Your task to perform on an android device: turn off javascript in the chrome app Image 0: 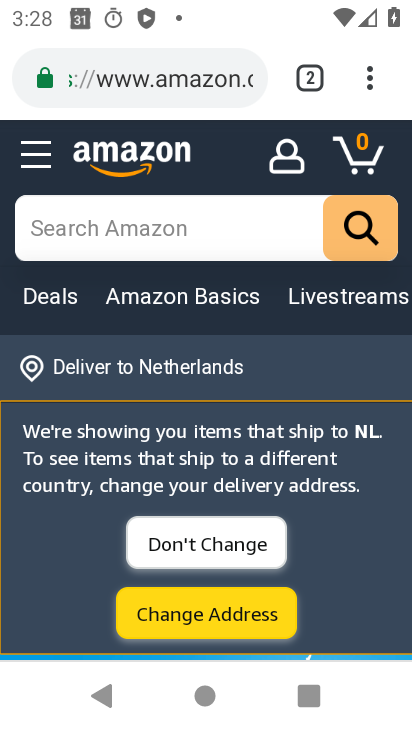
Step 0: press home button
Your task to perform on an android device: turn off javascript in the chrome app Image 1: 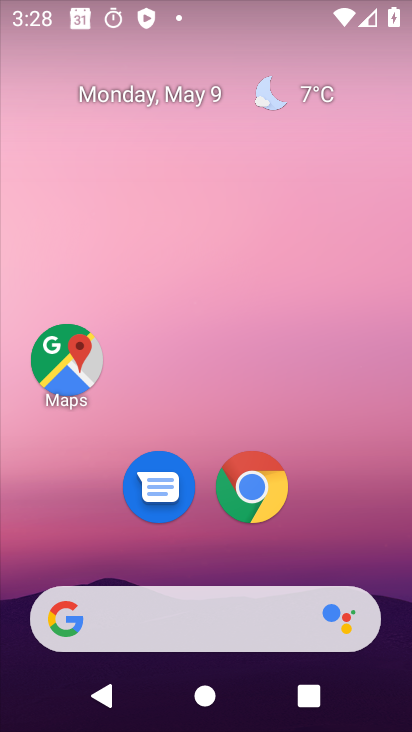
Step 1: drag from (293, 620) to (295, 4)
Your task to perform on an android device: turn off javascript in the chrome app Image 2: 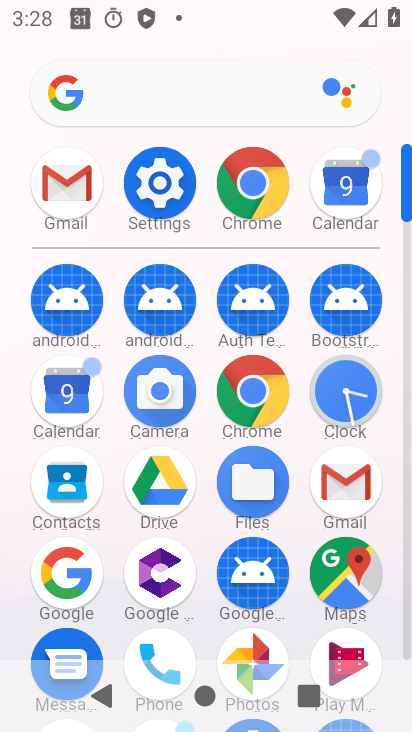
Step 2: click (252, 399)
Your task to perform on an android device: turn off javascript in the chrome app Image 3: 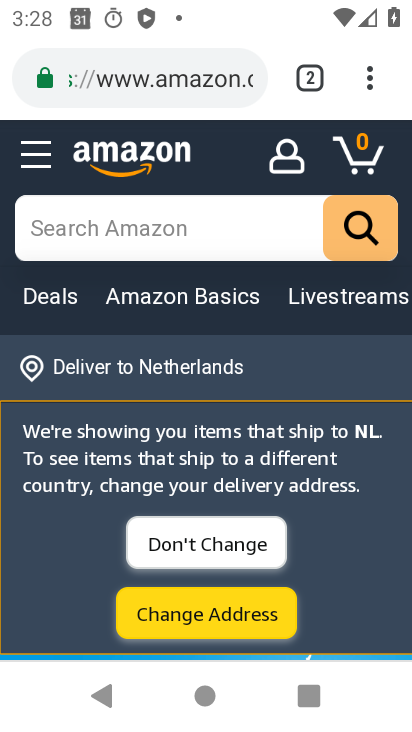
Step 3: drag from (372, 83) to (244, 555)
Your task to perform on an android device: turn off javascript in the chrome app Image 4: 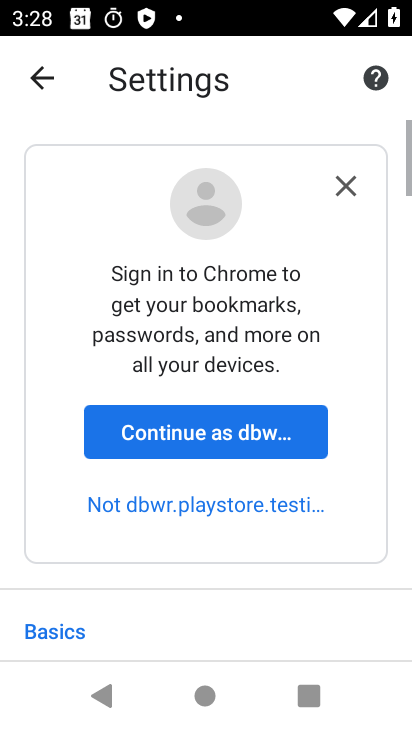
Step 4: drag from (169, 636) to (142, 62)
Your task to perform on an android device: turn off javascript in the chrome app Image 5: 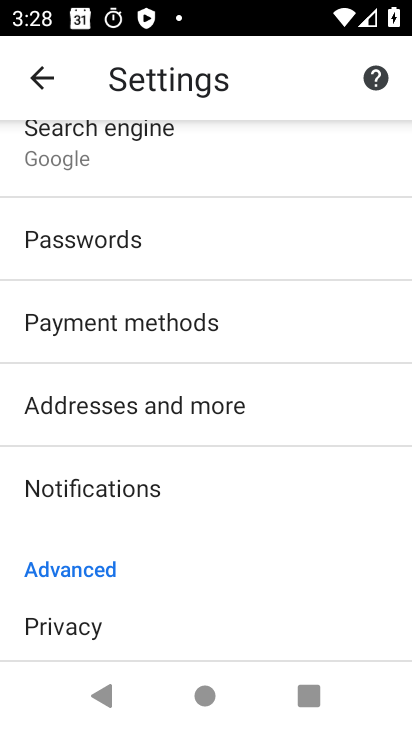
Step 5: drag from (279, 589) to (301, 282)
Your task to perform on an android device: turn off javascript in the chrome app Image 6: 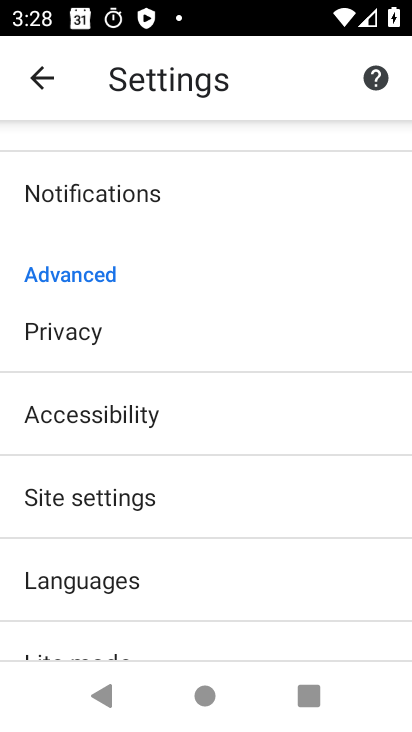
Step 6: click (275, 479)
Your task to perform on an android device: turn off javascript in the chrome app Image 7: 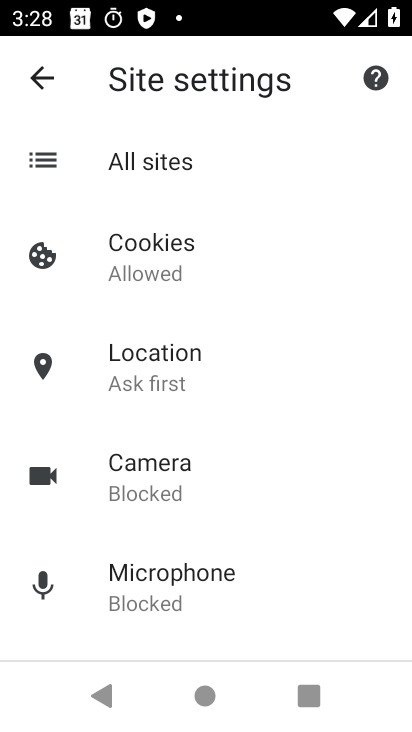
Step 7: drag from (254, 571) to (234, 197)
Your task to perform on an android device: turn off javascript in the chrome app Image 8: 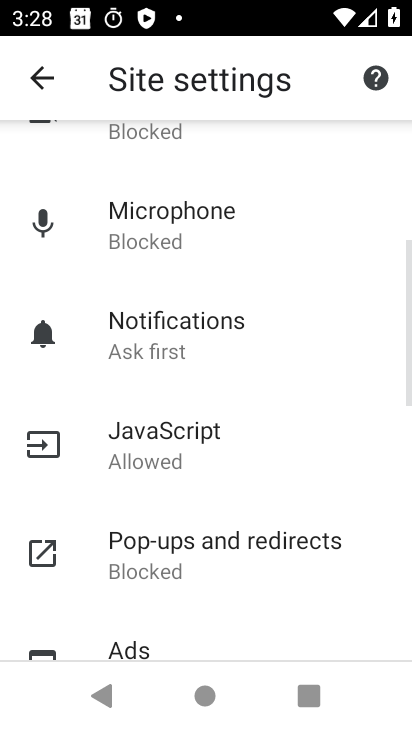
Step 8: click (189, 446)
Your task to perform on an android device: turn off javascript in the chrome app Image 9: 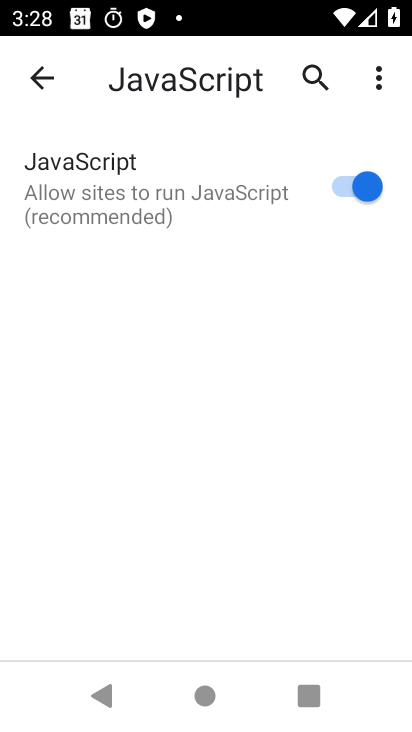
Step 9: click (354, 186)
Your task to perform on an android device: turn off javascript in the chrome app Image 10: 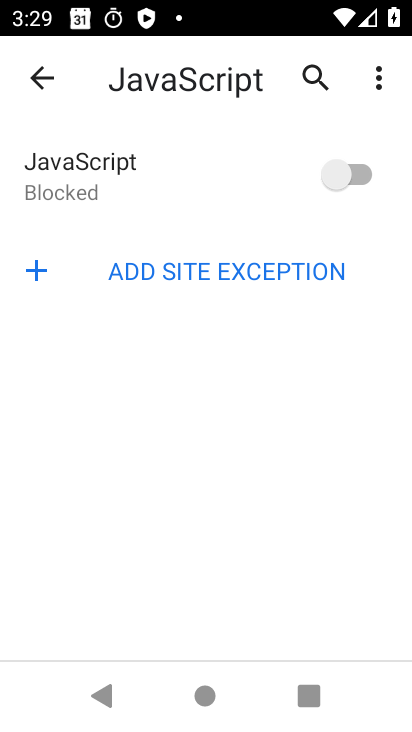
Step 10: task complete